Your task to perform on an android device: turn off translation in the chrome app Image 0: 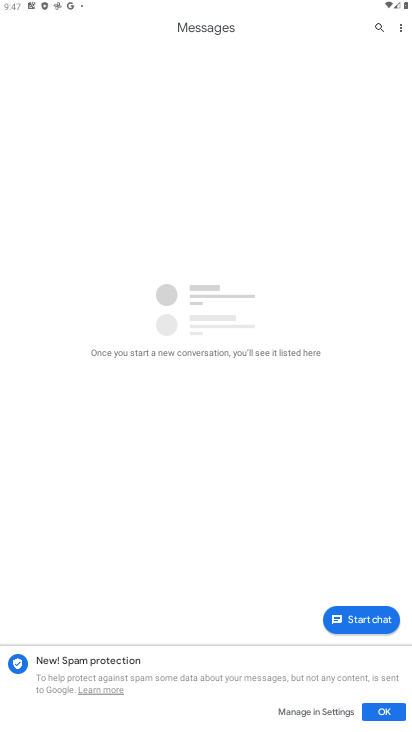
Step 0: press home button
Your task to perform on an android device: turn off translation in the chrome app Image 1: 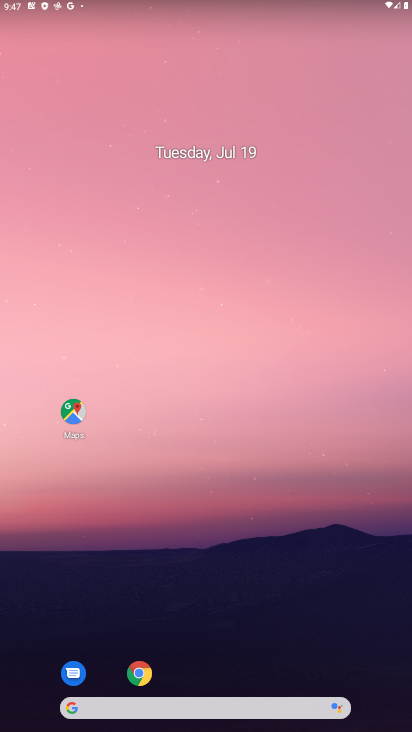
Step 1: drag from (232, 677) to (132, 312)
Your task to perform on an android device: turn off translation in the chrome app Image 2: 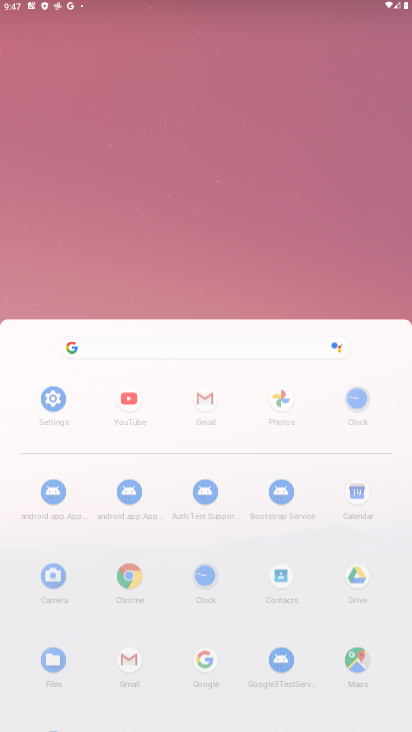
Step 2: click (132, 312)
Your task to perform on an android device: turn off translation in the chrome app Image 3: 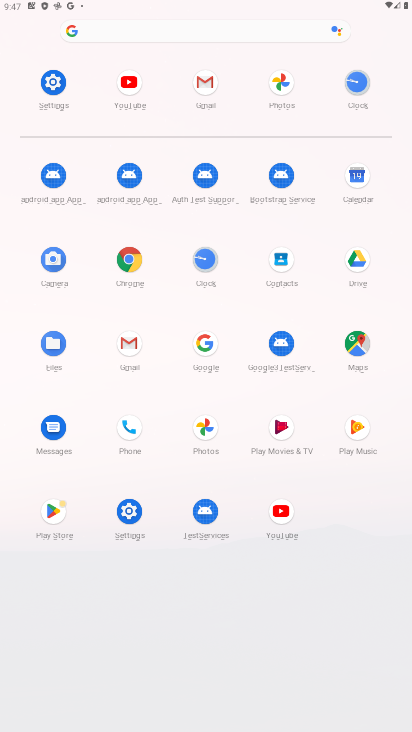
Step 3: click (143, 271)
Your task to perform on an android device: turn off translation in the chrome app Image 4: 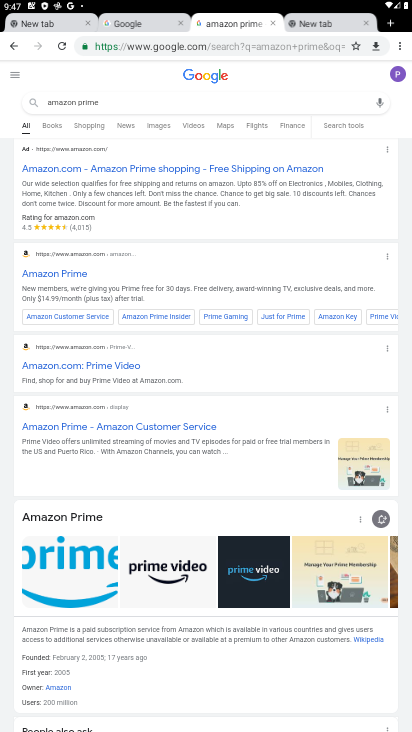
Step 4: task complete